Your task to perform on an android device: turn on showing notifications on the lock screen Image 0: 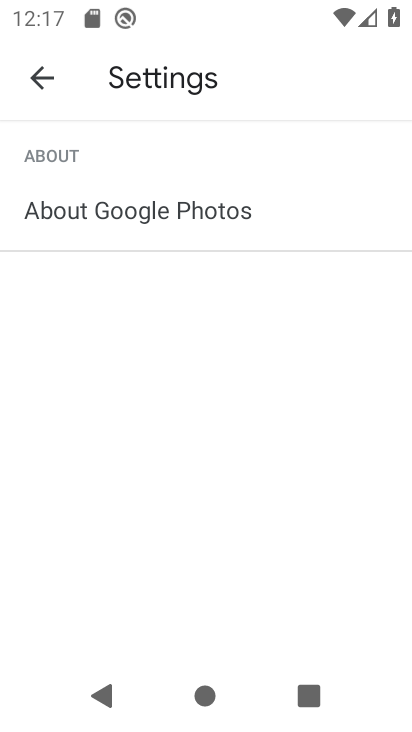
Step 0: press home button
Your task to perform on an android device: turn on showing notifications on the lock screen Image 1: 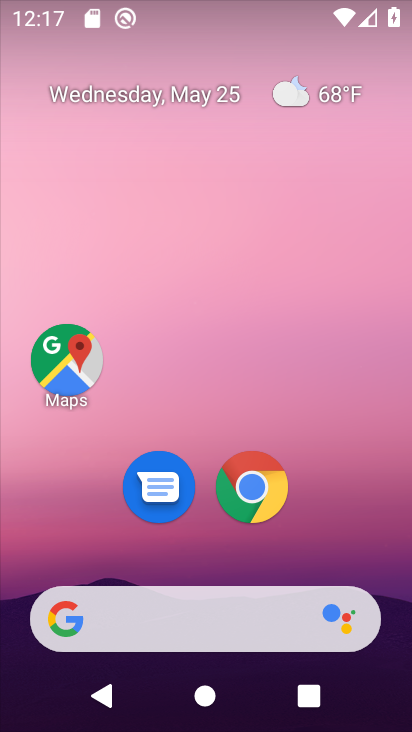
Step 1: drag from (197, 525) to (260, 7)
Your task to perform on an android device: turn on showing notifications on the lock screen Image 2: 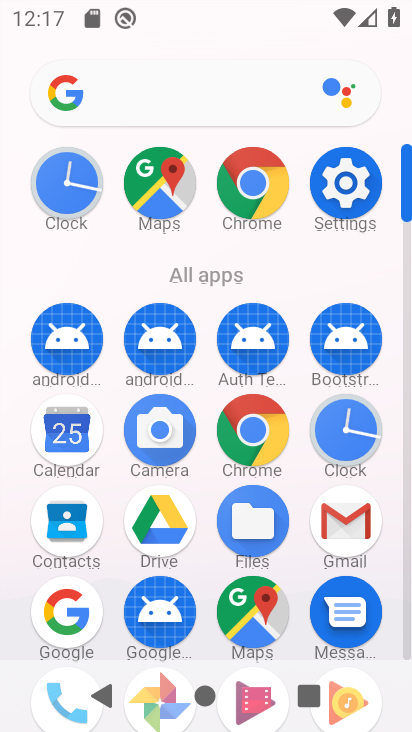
Step 2: click (350, 176)
Your task to perform on an android device: turn on showing notifications on the lock screen Image 3: 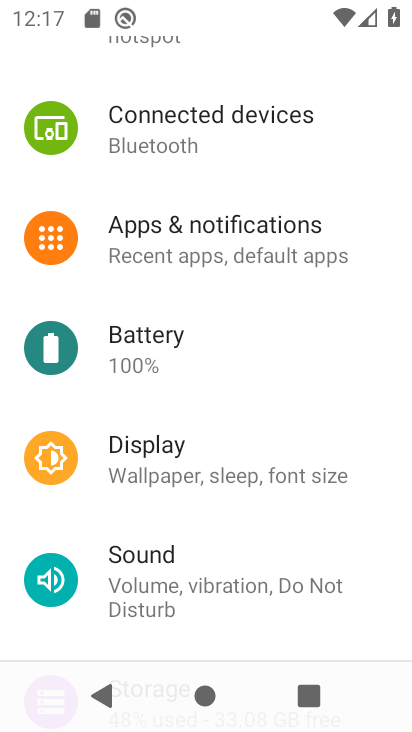
Step 3: click (178, 246)
Your task to perform on an android device: turn on showing notifications on the lock screen Image 4: 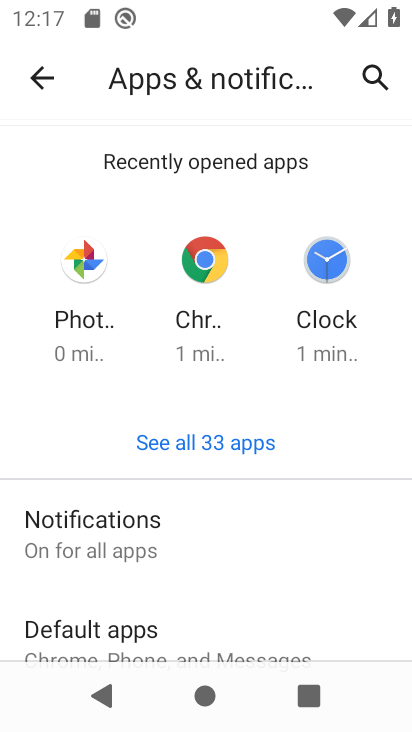
Step 4: drag from (175, 608) to (236, 188)
Your task to perform on an android device: turn on showing notifications on the lock screen Image 5: 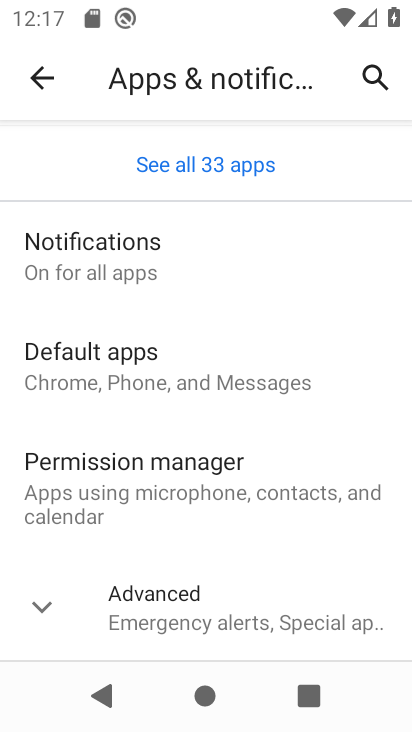
Step 5: click (157, 255)
Your task to perform on an android device: turn on showing notifications on the lock screen Image 6: 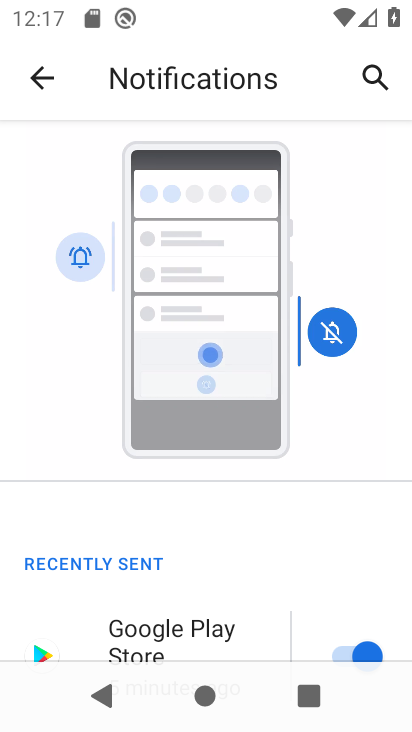
Step 6: drag from (168, 604) to (229, 92)
Your task to perform on an android device: turn on showing notifications on the lock screen Image 7: 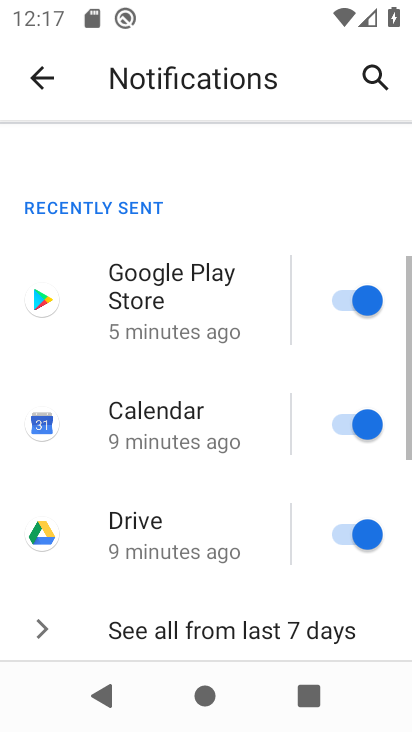
Step 7: drag from (177, 613) to (242, 108)
Your task to perform on an android device: turn on showing notifications on the lock screen Image 8: 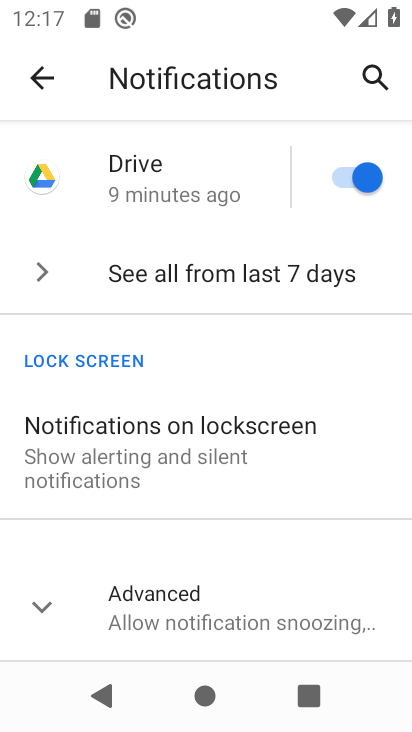
Step 8: click (189, 429)
Your task to perform on an android device: turn on showing notifications on the lock screen Image 9: 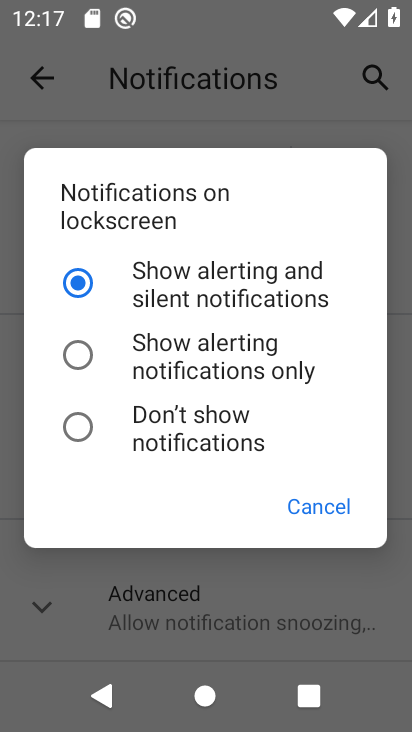
Step 9: click (66, 268)
Your task to perform on an android device: turn on showing notifications on the lock screen Image 10: 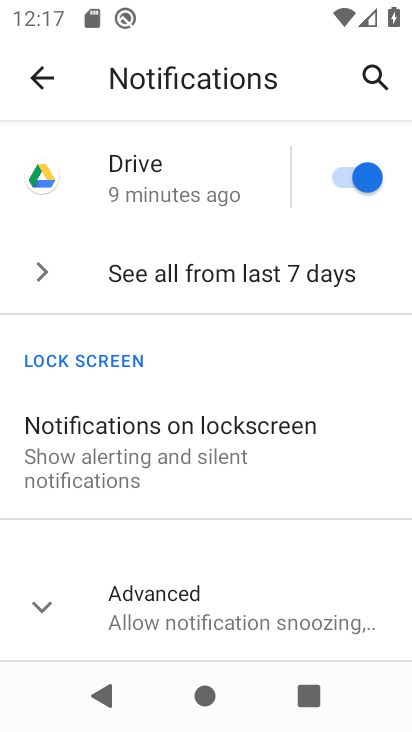
Step 10: task complete